Your task to perform on an android device: Open Google Chrome Image 0: 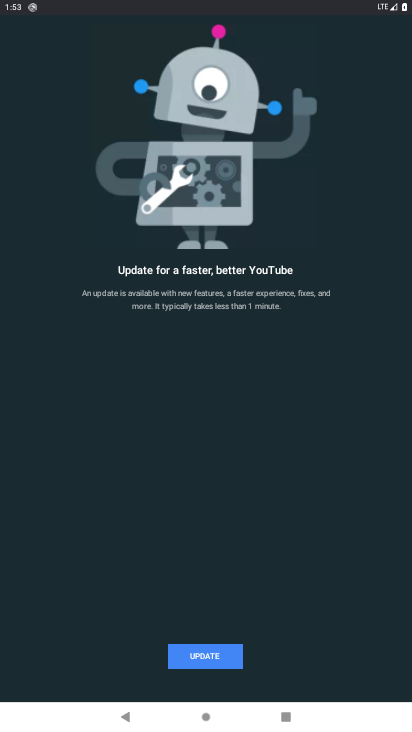
Step 0: press home button
Your task to perform on an android device: Open Google Chrome Image 1: 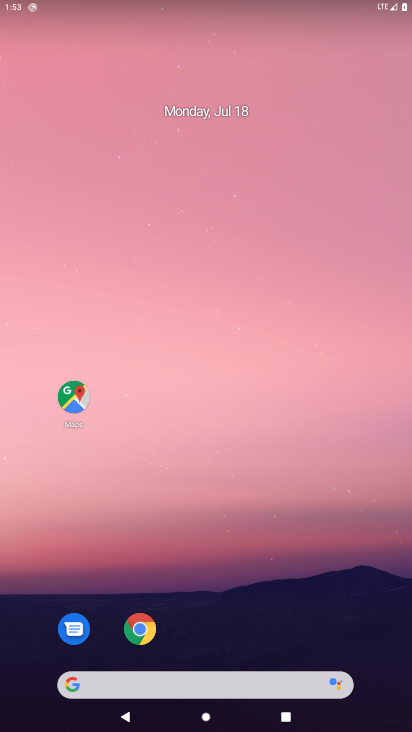
Step 1: drag from (257, 560) to (307, 156)
Your task to perform on an android device: Open Google Chrome Image 2: 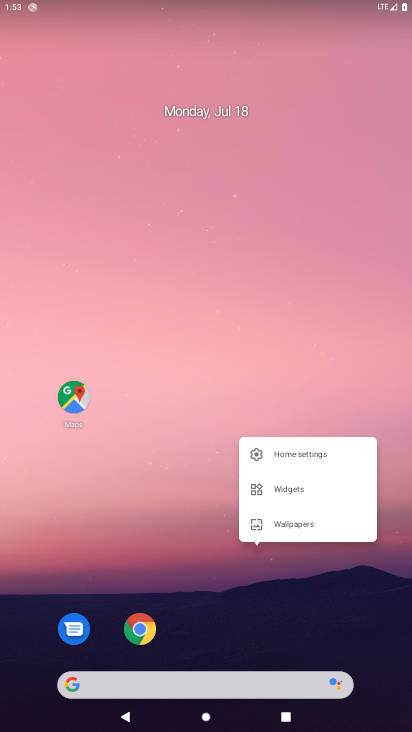
Step 2: click (145, 393)
Your task to perform on an android device: Open Google Chrome Image 3: 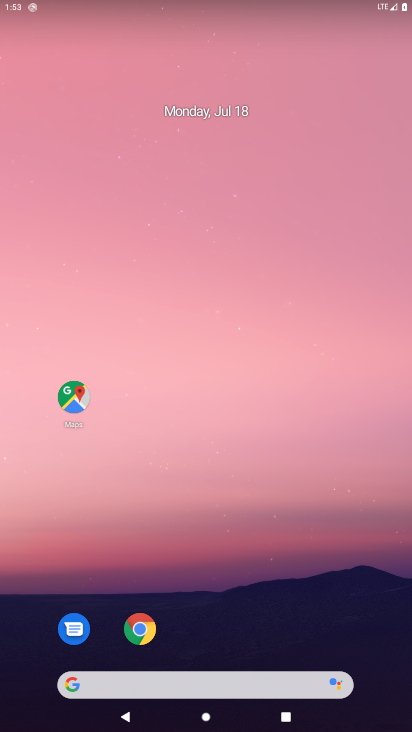
Step 3: drag from (254, 525) to (147, 171)
Your task to perform on an android device: Open Google Chrome Image 4: 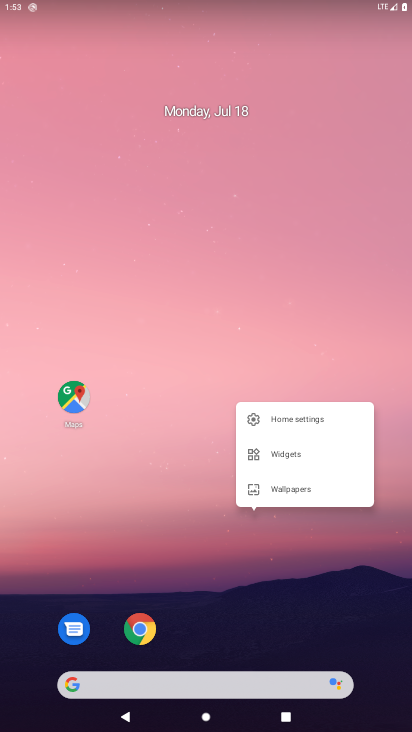
Step 4: click (168, 240)
Your task to perform on an android device: Open Google Chrome Image 5: 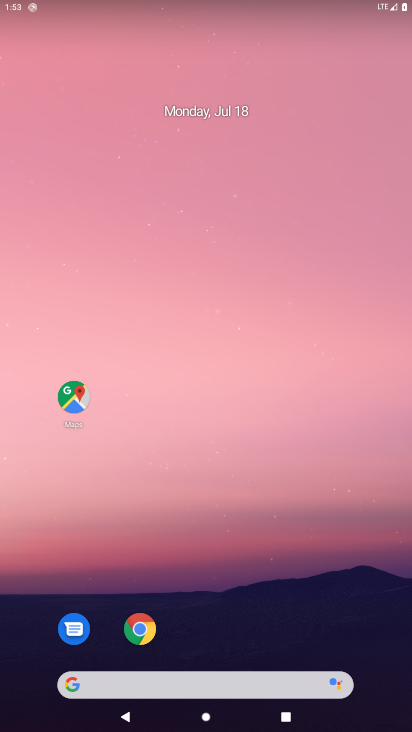
Step 5: drag from (228, 512) to (237, 120)
Your task to perform on an android device: Open Google Chrome Image 6: 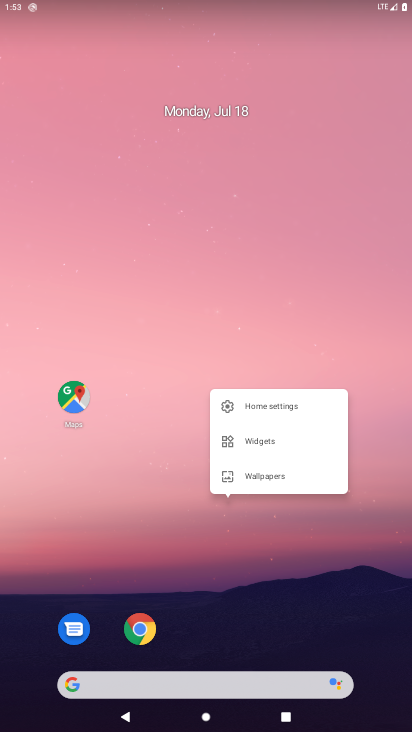
Step 6: click (205, 285)
Your task to perform on an android device: Open Google Chrome Image 7: 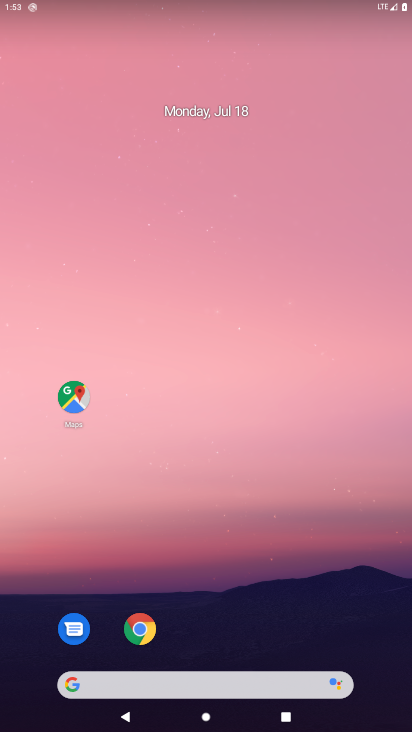
Step 7: drag from (257, 618) to (228, 131)
Your task to perform on an android device: Open Google Chrome Image 8: 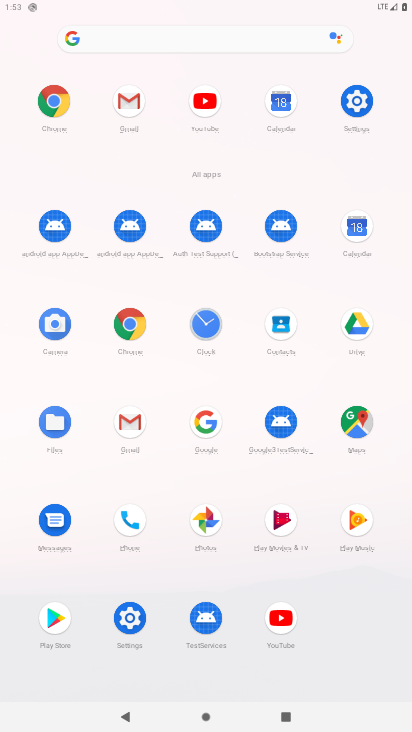
Step 8: click (53, 106)
Your task to perform on an android device: Open Google Chrome Image 9: 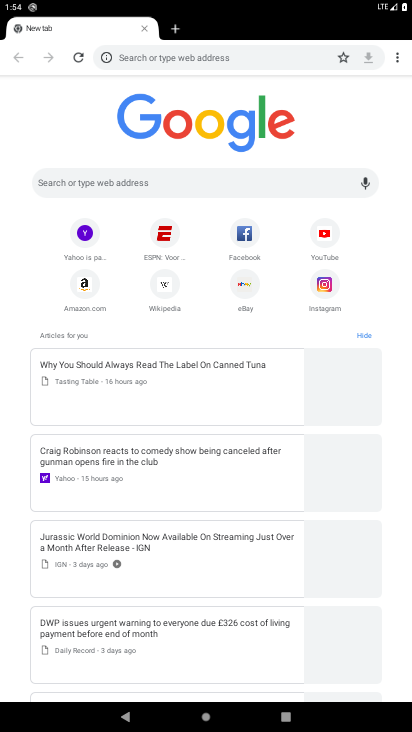
Step 9: task complete